Your task to perform on an android device: What's the weather? Image 0: 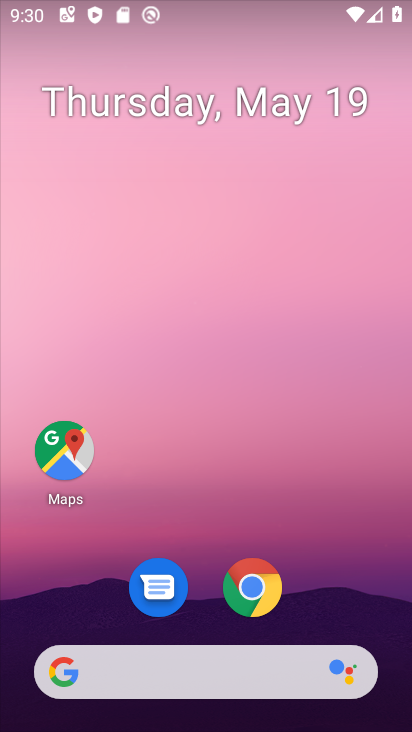
Step 0: drag from (31, 283) to (350, 226)
Your task to perform on an android device: What's the weather? Image 1: 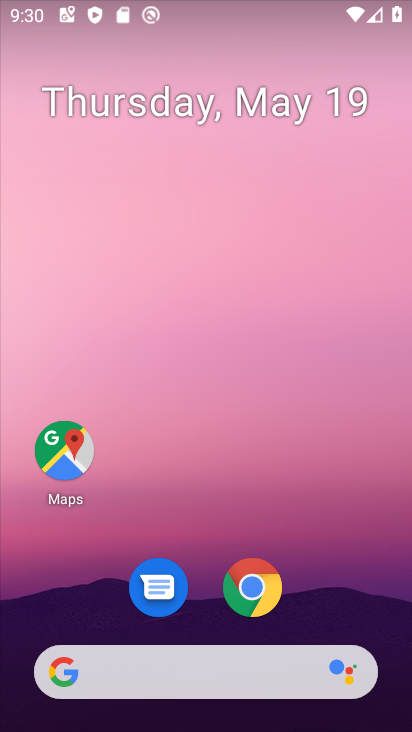
Step 1: drag from (12, 341) to (291, 293)
Your task to perform on an android device: What's the weather? Image 2: 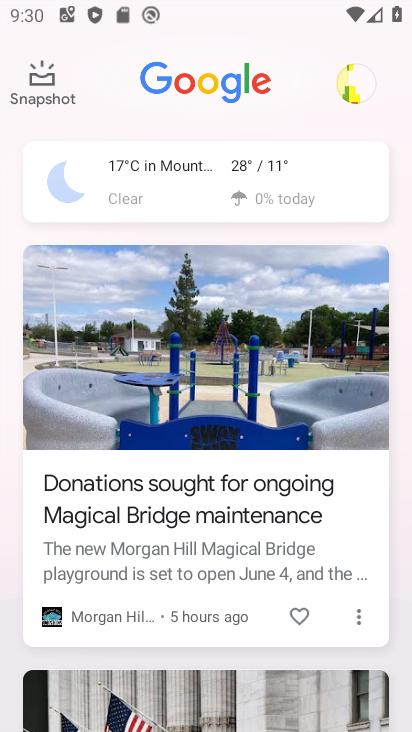
Step 2: click (69, 203)
Your task to perform on an android device: What's the weather? Image 3: 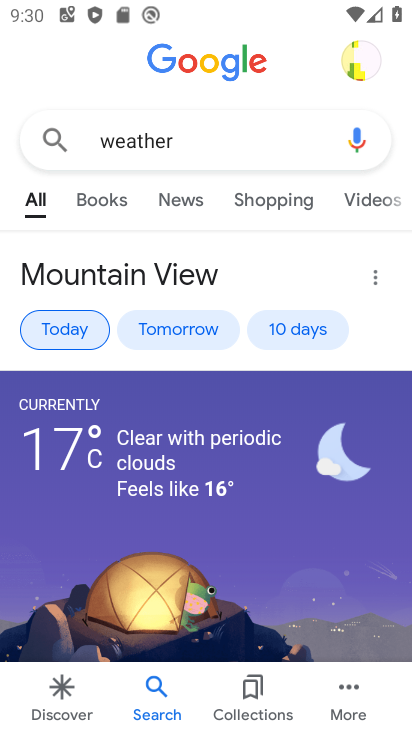
Step 3: task complete